Your task to perform on an android device: turn on improve location accuracy Image 0: 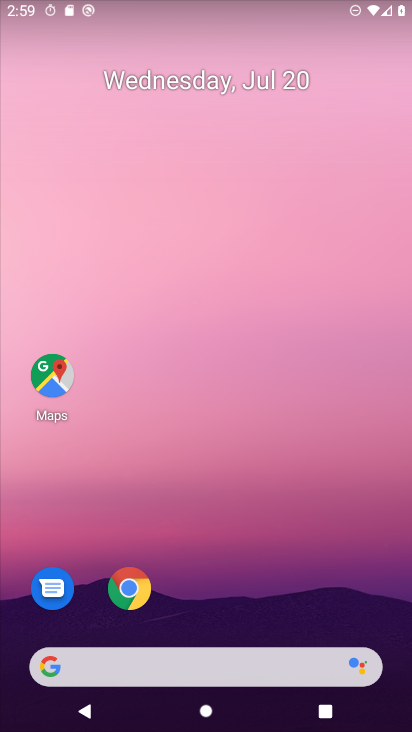
Step 0: drag from (202, 626) to (252, 90)
Your task to perform on an android device: turn on improve location accuracy Image 1: 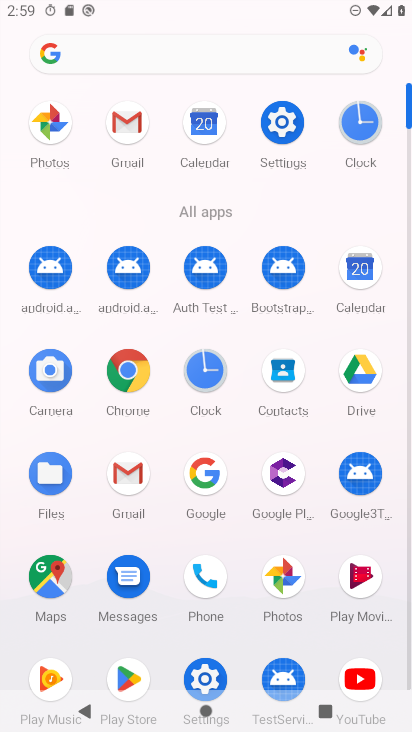
Step 1: click (289, 137)
Your task to perform on an android device: turn on improve location accuracy Image 2: 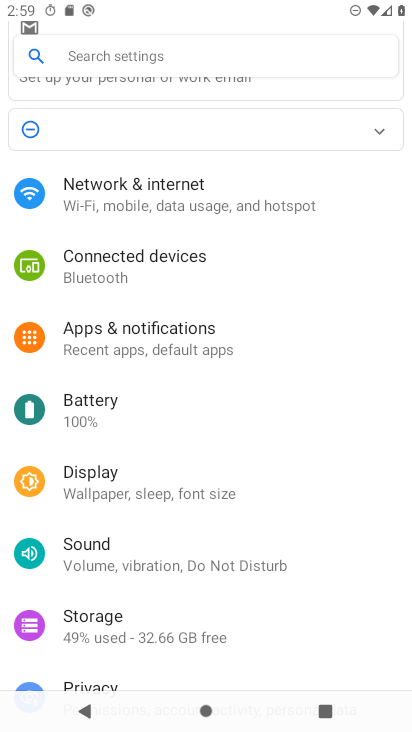
Step 2: drag from (290, 568) to (145, 11)
Your task to perform on an android device: turn on improve location accuracy Image 3: 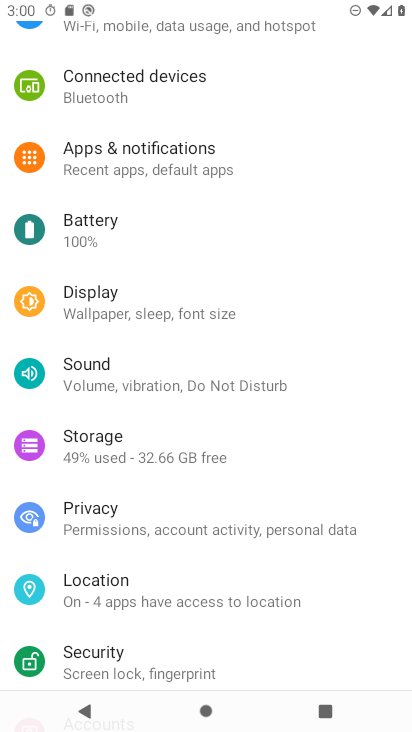
Step 3: click (97, 556)
Your task to perform on an android device: turn on improve location accuracy Image 4: 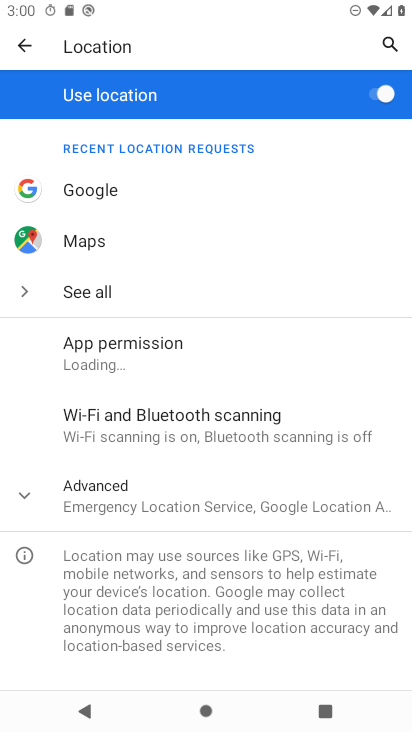
Step 4: click (100, 488)
Your task to perform on an android device: turn on improve location accuracy Image 5: 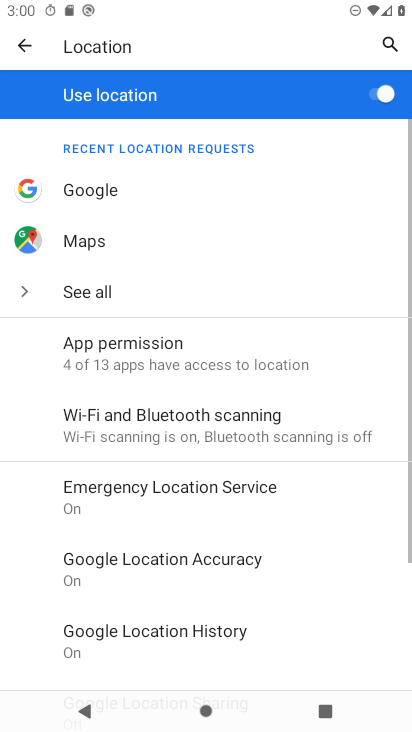
Step 5: click (163, 553)
Your task to perform on an android device: turn on improve location accuracy Image 6: 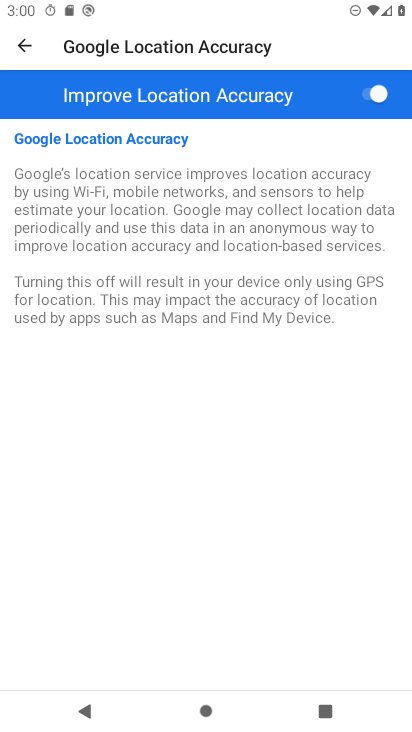
Step 6: task complete